Your task to perform on an android device: turn vacation reply on in the gmail app Image 0: 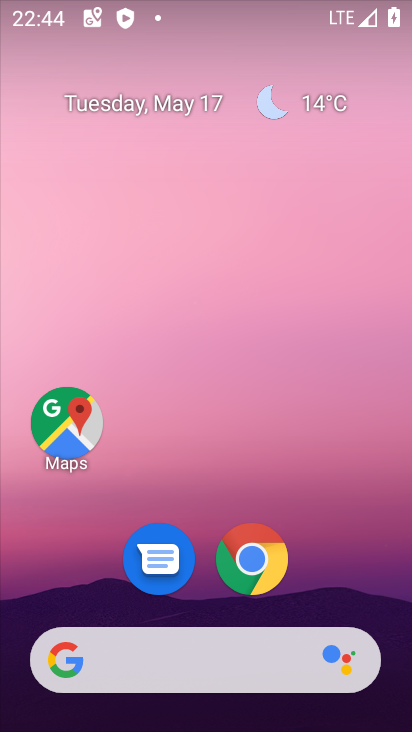
Step 0: drag from (351, 524) to (342, 194)
Your task to perform on an android device: turn vacation reply on in the gmail app Image 1: 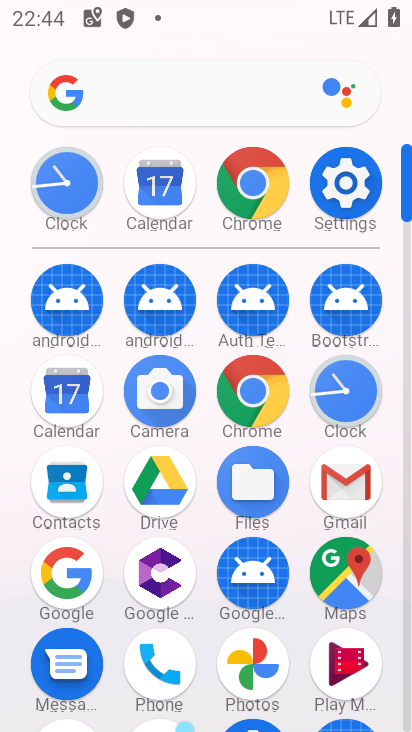
Step 1: click (349, 477)
Your task to perform on an android device: turn vacation reply on in the gmail app Image 2: 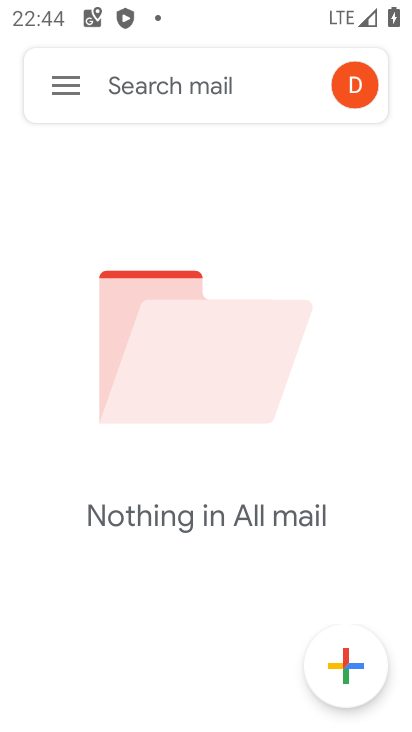
Step 2: click (52, 82)
Your task to perform on an android device: turn vacation reply on in the gmail app Image 3: 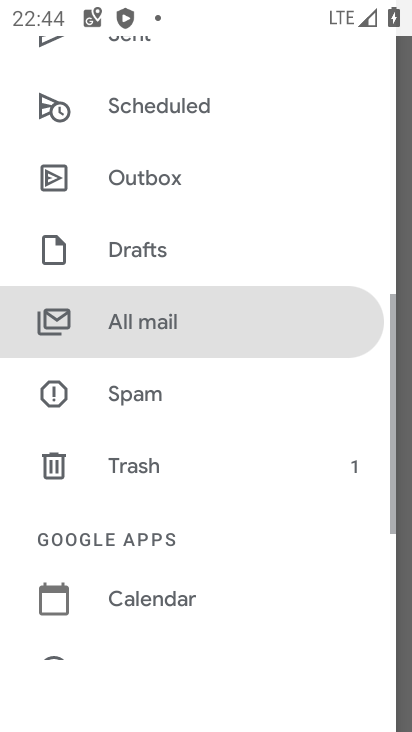
Step 3: drag from (213, 590) to (266, 163)
Your task to perform on an android device: turn vacation reply on in the gmail app Image 4: 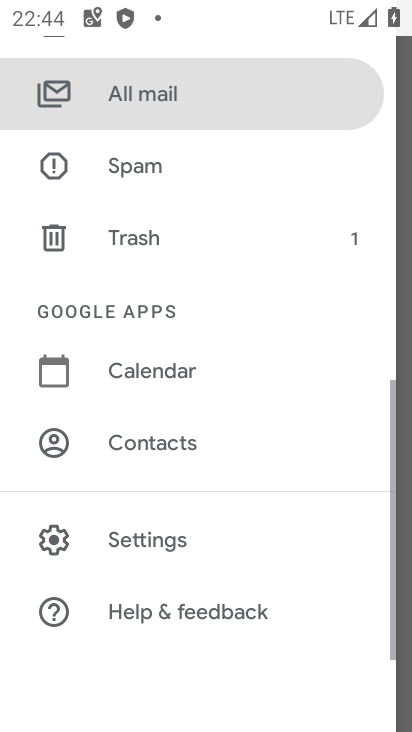
Step 4: click (135, 560)
Your task to perform on an android device: turn vacation reply on in the gmail app Image 5: 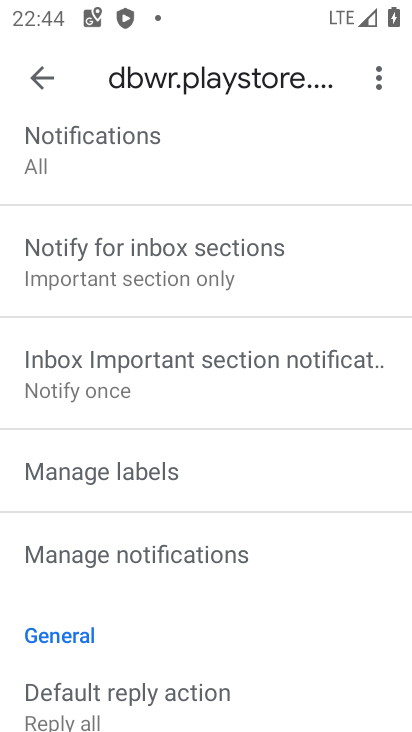
Step 5: drag from (252, 545) to (312, 302)
Your task to perform on an android device: turn vacation reply on in the gmail app Image 6: 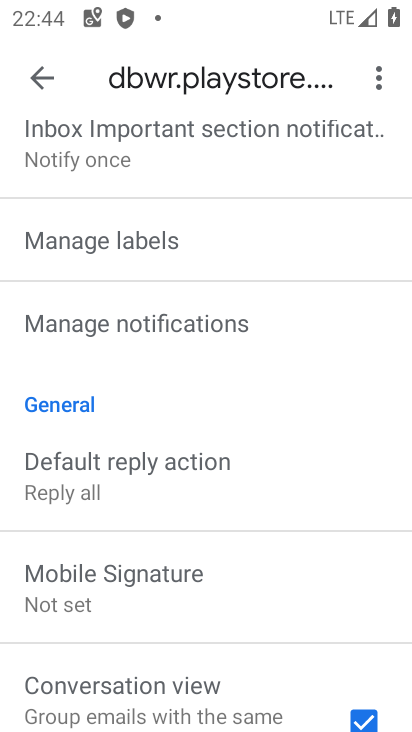
Step 6: drag from (143, 537) to (330, 209)
Your task to perform on an android device: turn vacation reply on in the gmail app Image 7: 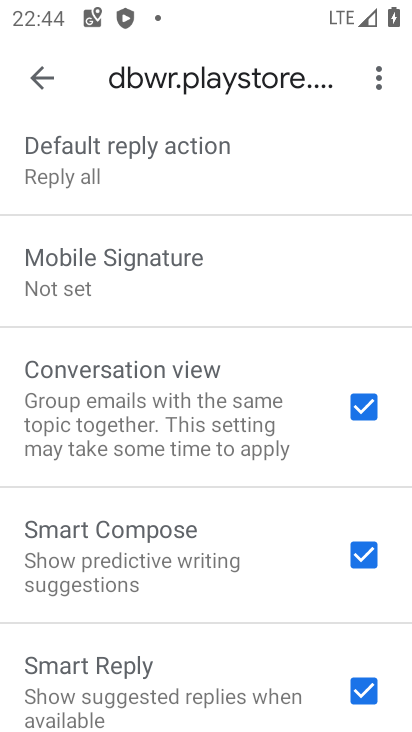
Step 7: drag from (287, 180) to (244, 665)
Your task to perform on an android device: turn vacation reply on in the gmail app Image 8: 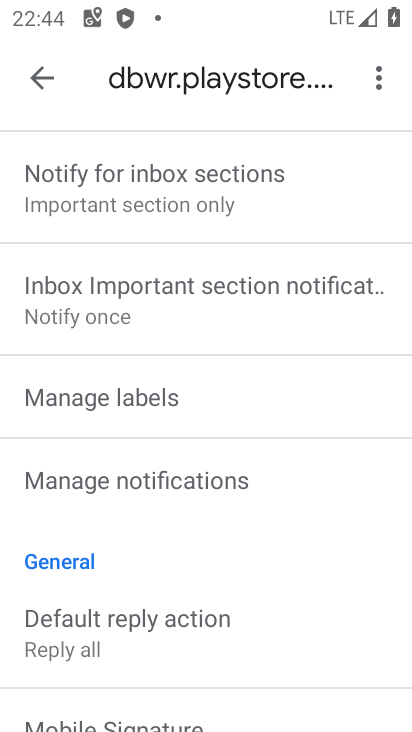
Step 8: drag from (271, 315) to (233, 675)
Your task to perform on an android device: turn vacation reply on in the gmail app Image 9: 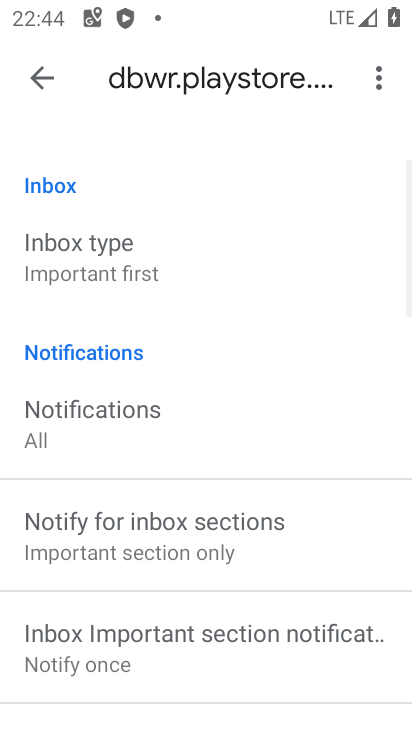
Step 9: drag from (260, 333) to (304, 224)
Your task to perform on an android device: turn vacation reply on in the gmail app Image 10: 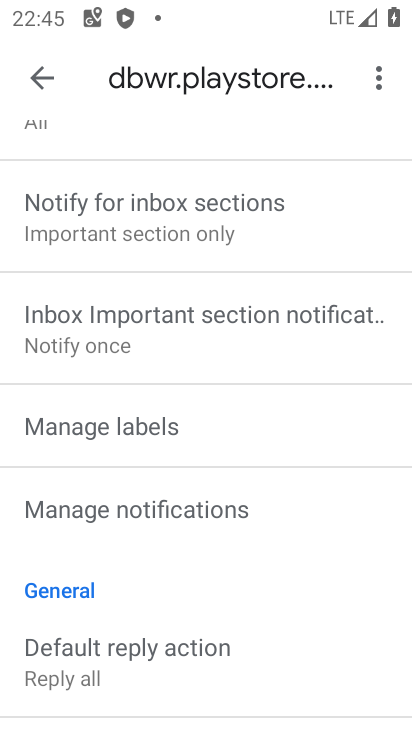
Step 10: drag from (201, 613) to (333, 112)
Your task to perform on an android device: turn vacation reply on in the gmail app Image 11: 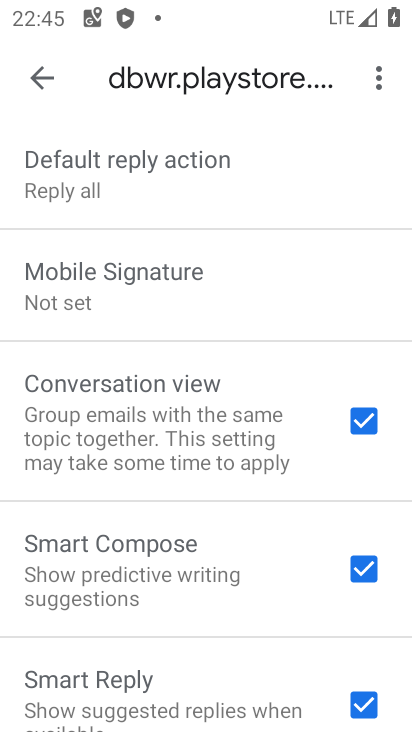
Step 11: drag from (192, 567) to (288, 159)
Your task to perform on an android device: turn vacation reply on in the gmail app Image 12: 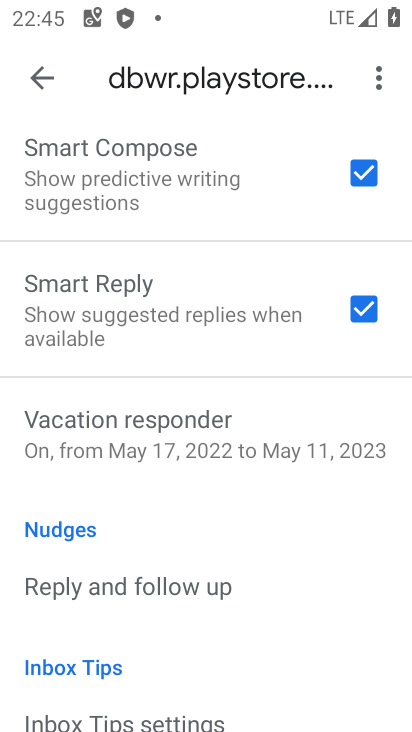
Step 12: click (180, 440)
Your task to perform on an android device: turn vacation reply on in the gmail app Image 13: 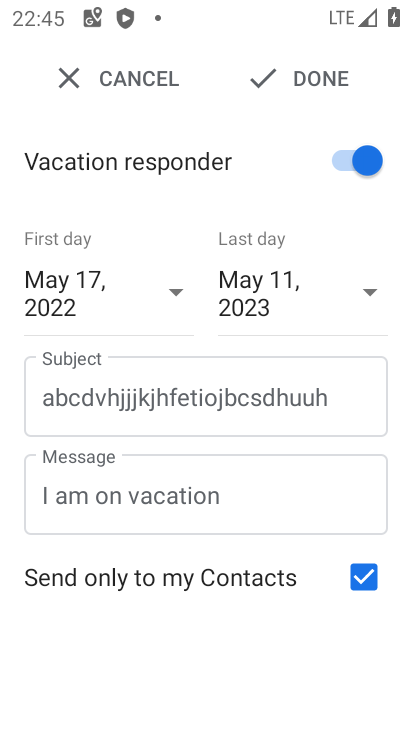
Step 13: task complete